Your task to perform on an android device: turn off location history Image 0: 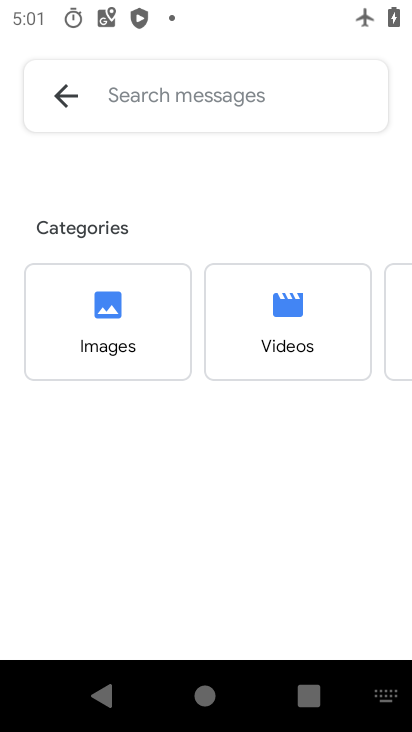
Step 0: press home button
Your task to perform on an android device: turn off location history Image 1: 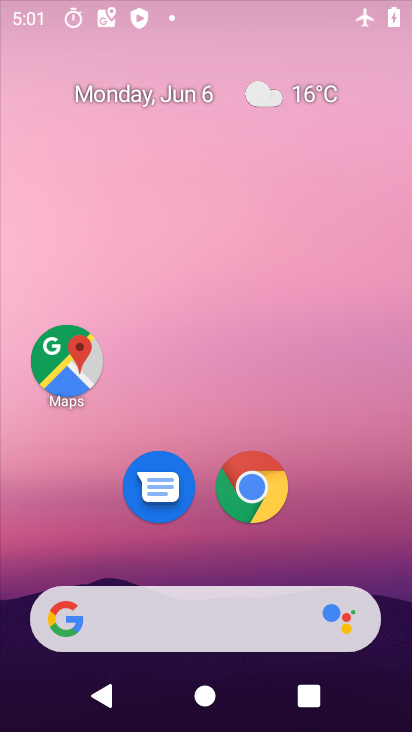
Step 1: drag from (366, 475) to (325, 22)
Your task to perform on an android device: turn off location history Image 2: 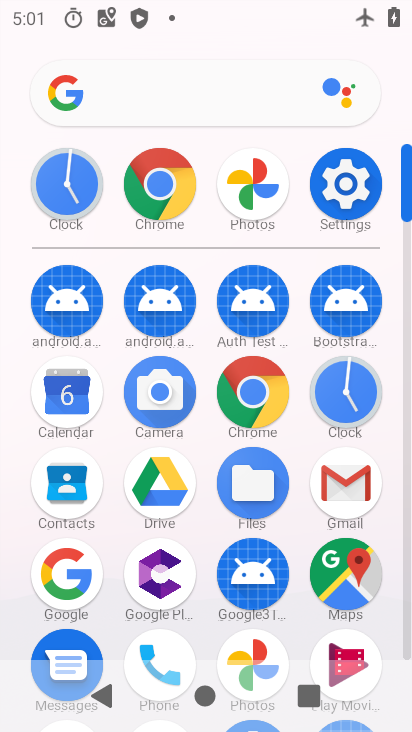
Step 2: click (360, 195)
Your task to perform on an android device: turn off location history Image 3: 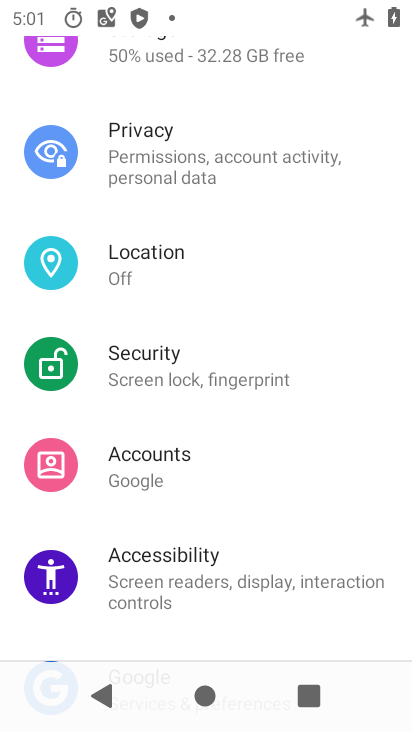
Step 3: click (165, 289)
Your task to perform on an android device: turn off location history Image 4: 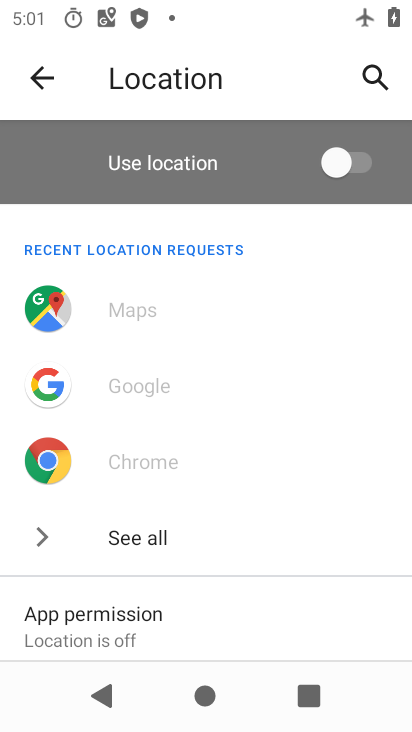
Step 4: drag from (247, 317) to (318, 49)
Your task to perform on an android device: turn off location history Image 5: 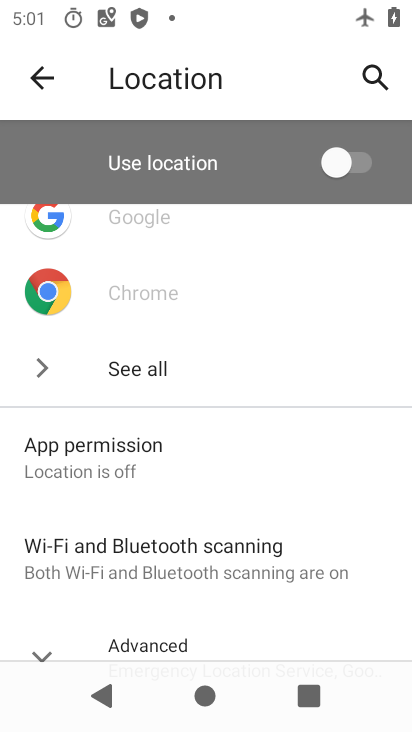
Step 5: drag from (296, 561) to (340, 102)
Your task to perform on an android device: turn off location history Image 6: 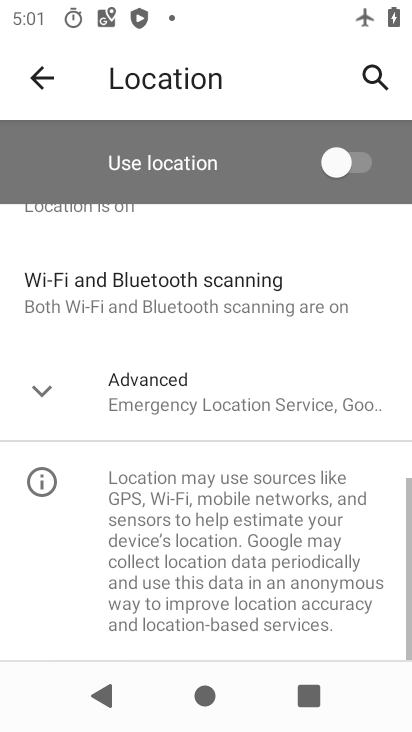
Step 6: click (241, 461)
Your task to perform on an android device: turn off location history Image 7: 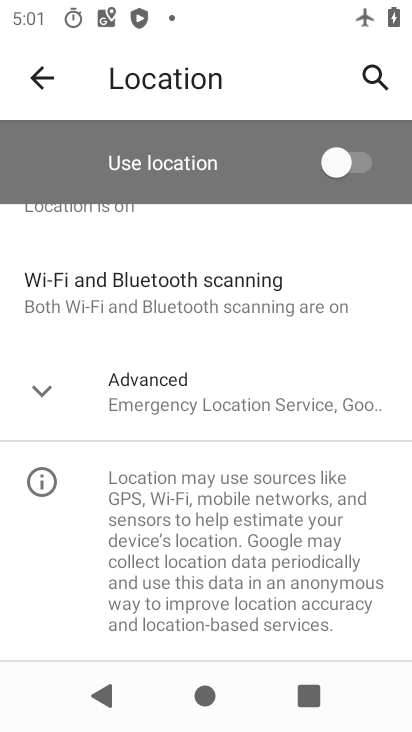
Step 7: click (218, 417)
Your task to perform on an android device: turn off location history Image 8: 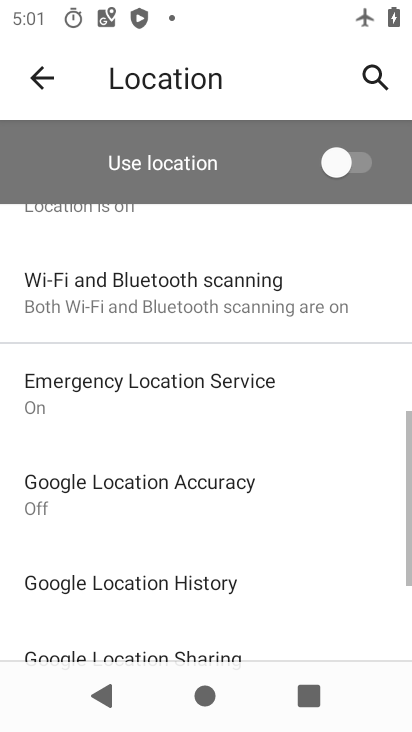
Step 8: drag from (261, 515) to (291, 252)
Your task to perform on an android device: turn off location history Image 9: 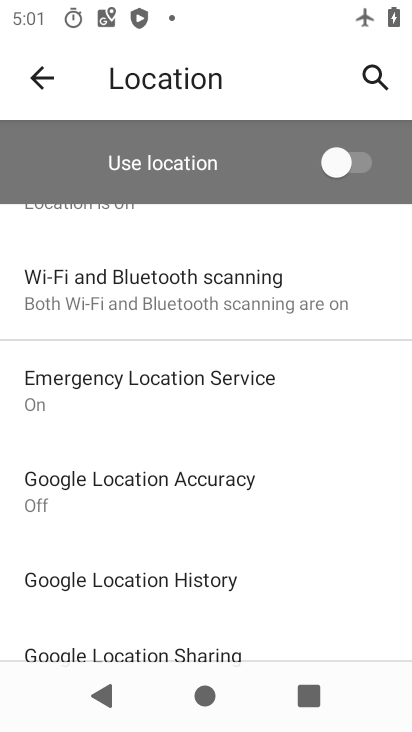
Step 9: click (202, 582)
Your task to perform on an android device: turn off location history Image 10: 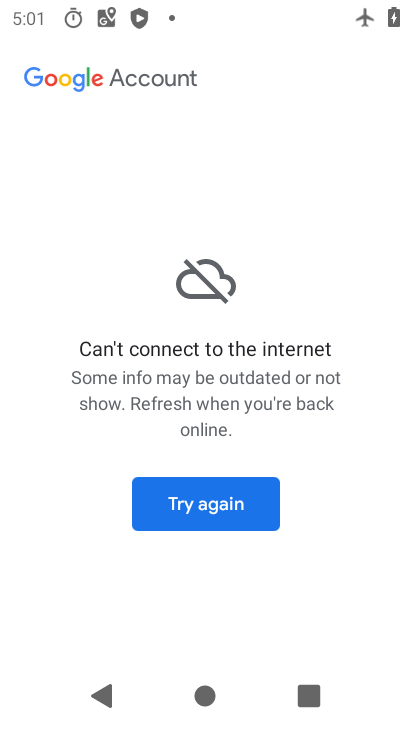
Step 10: task complete